Your task to perform on an android device: Go to Google maps Image 0: 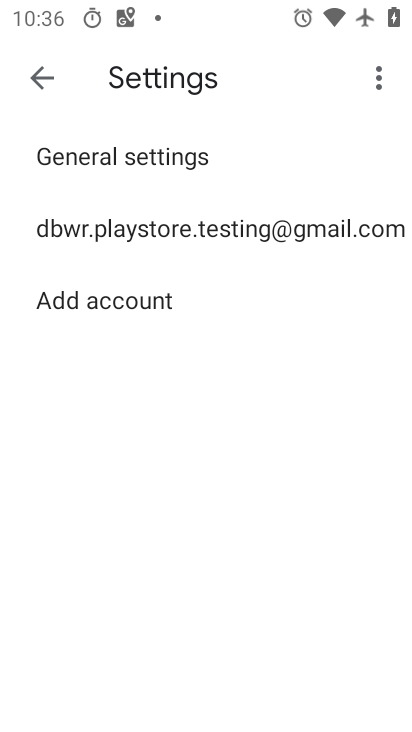
Step 0: press home button
Your task to perform on an android device: Go to Google maps Image 1: 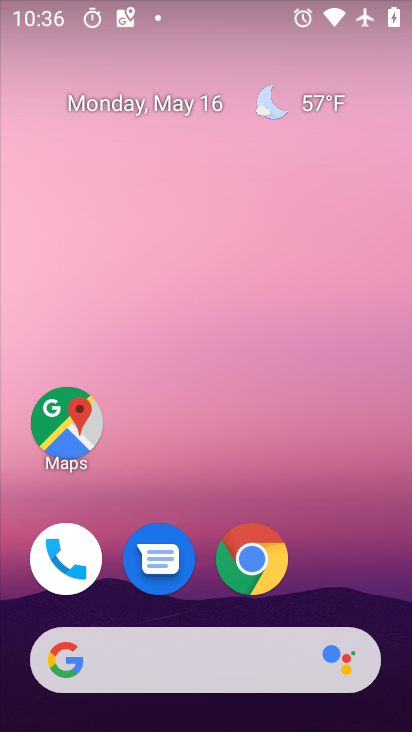
Step 1: click (77, 433)
Your task to perform on an android device: Go to Google maps Image 2: 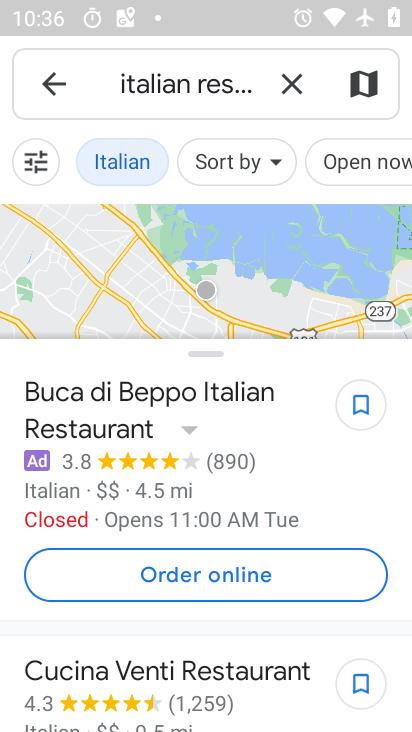
Step 2: task complete